Your task to perform on an android device: open app "Facebook Lite" (install if not already installed) and go to login screen Image 0: 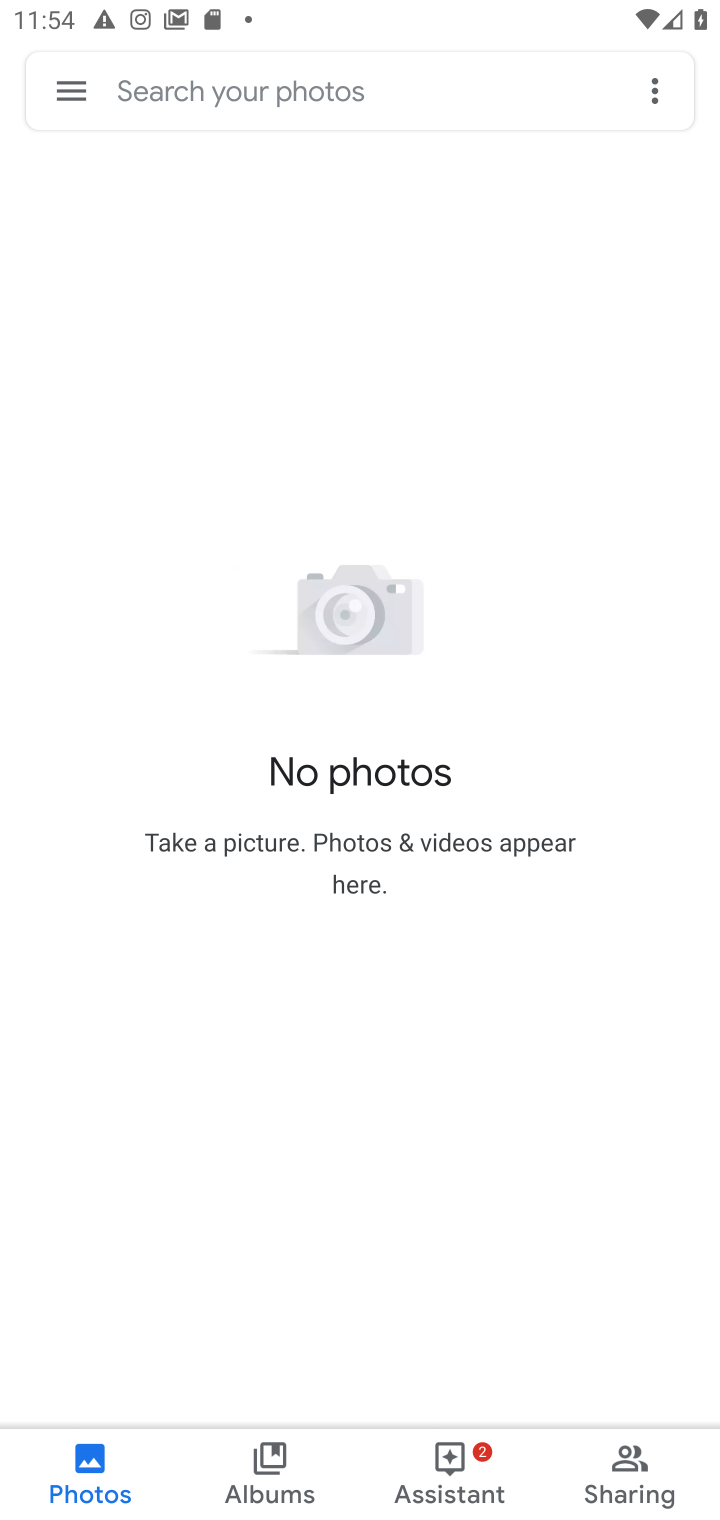
Step 0: press home button
Your task to perform on an android device: open app "Facebook Lite" (install if not already installed) and go to login screen Image 1: 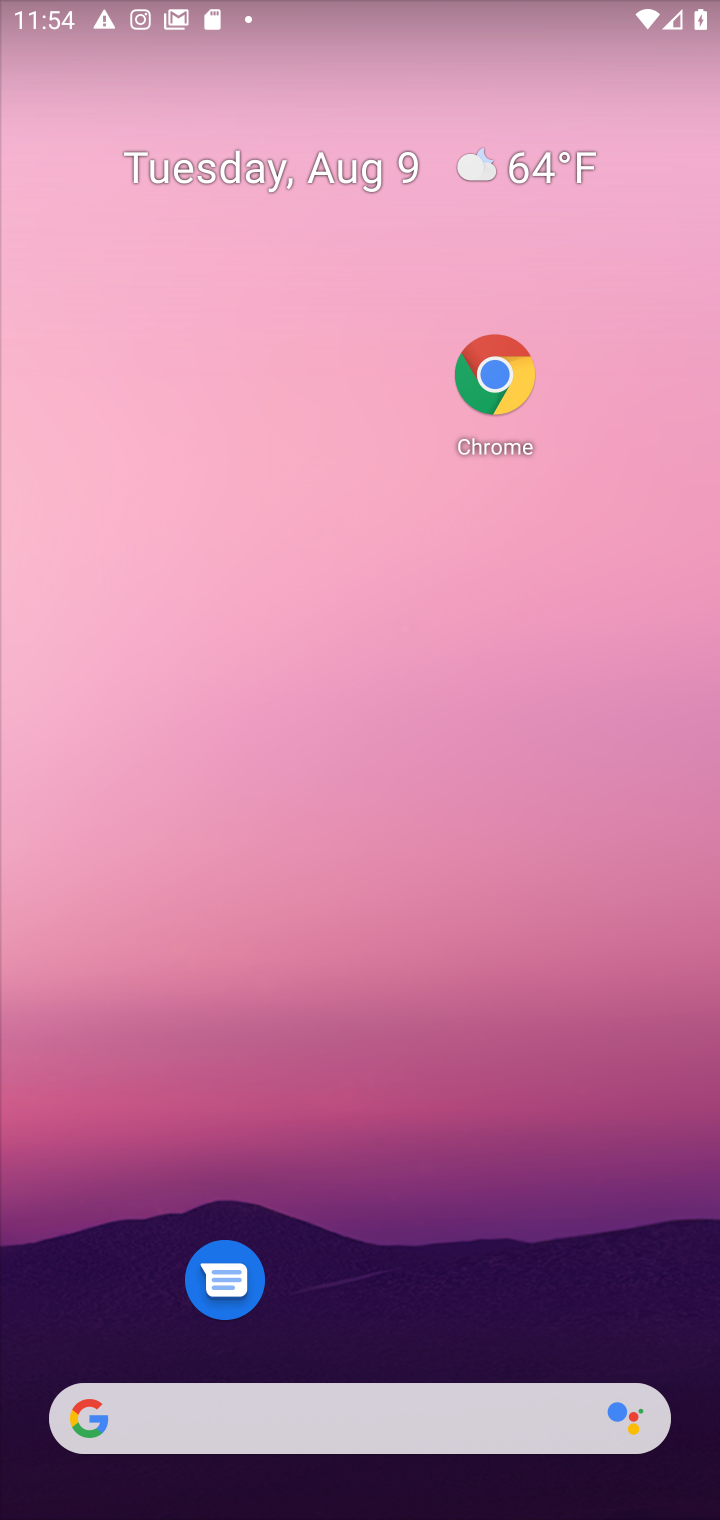
Step 1: drag from (405, 1383) to (712, 1273)
Your task to perform on an android device: open app "Facebook Lite" (install if not already installed) and go to login screen Image 2: 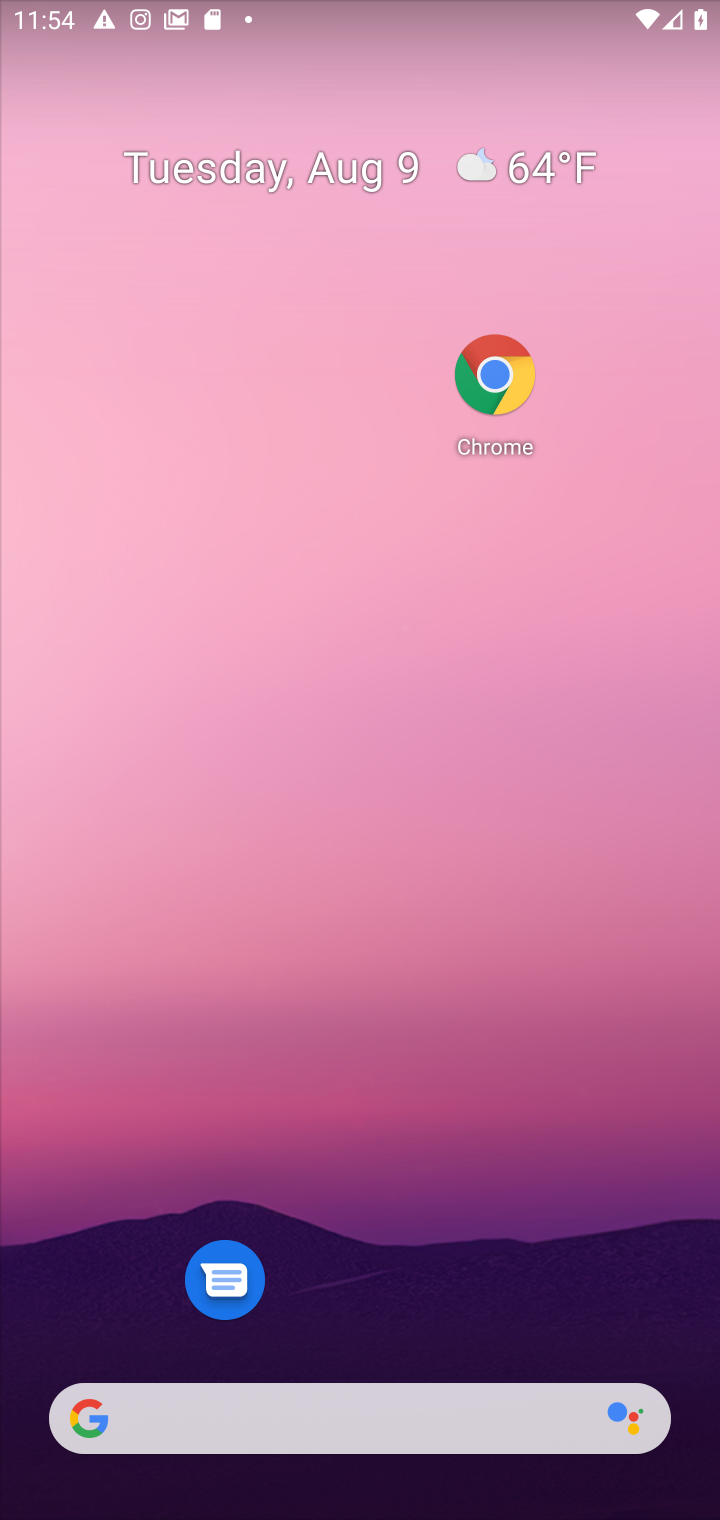
Step 2: drag from (358, 1326) to (432, 11)
Your task to perform on an android device: open app "Facebook Lite" (install if not already installed) and go to login screen Image 3: 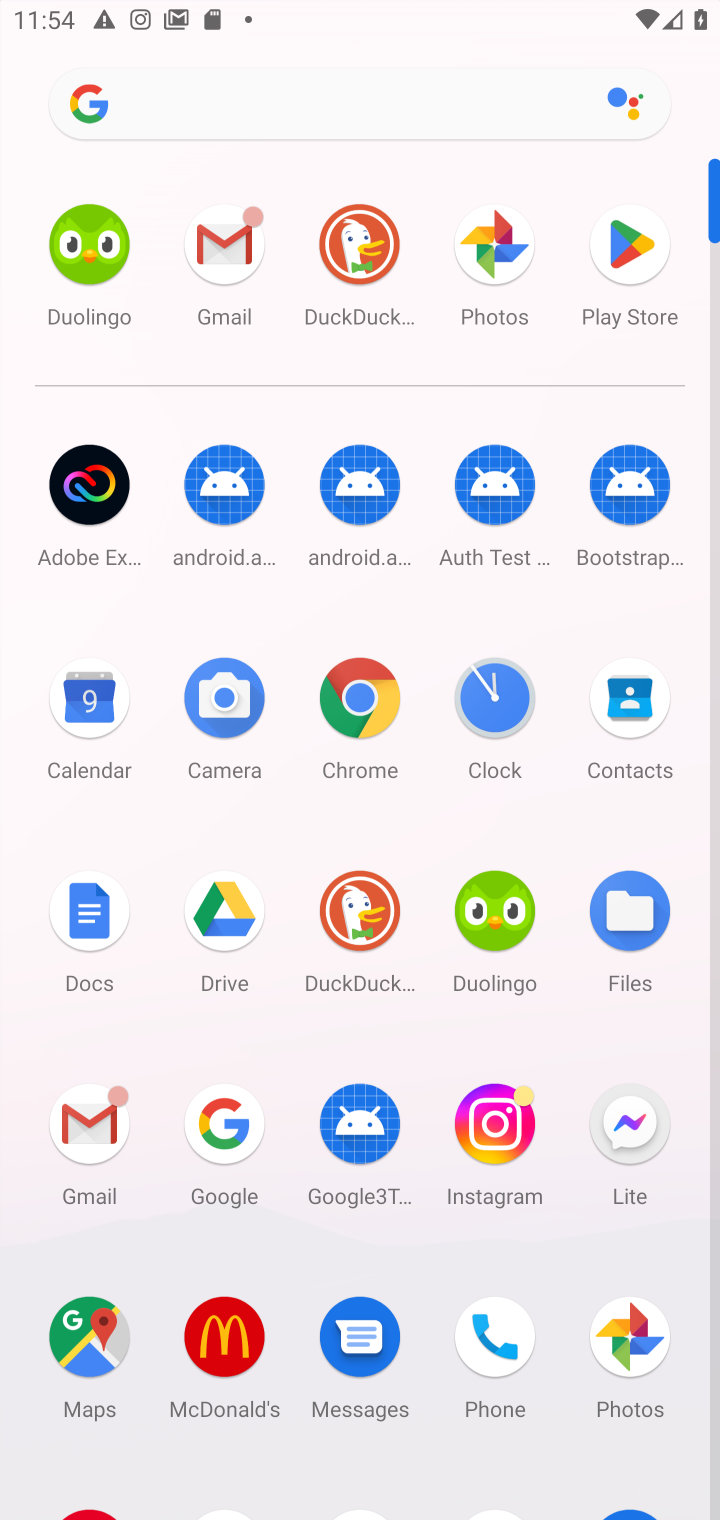
Step 3: click (642, 257)
Your task to perform on an android device: open app "Facebook Lite" (install if not already installed) and go to login screen Image 4: 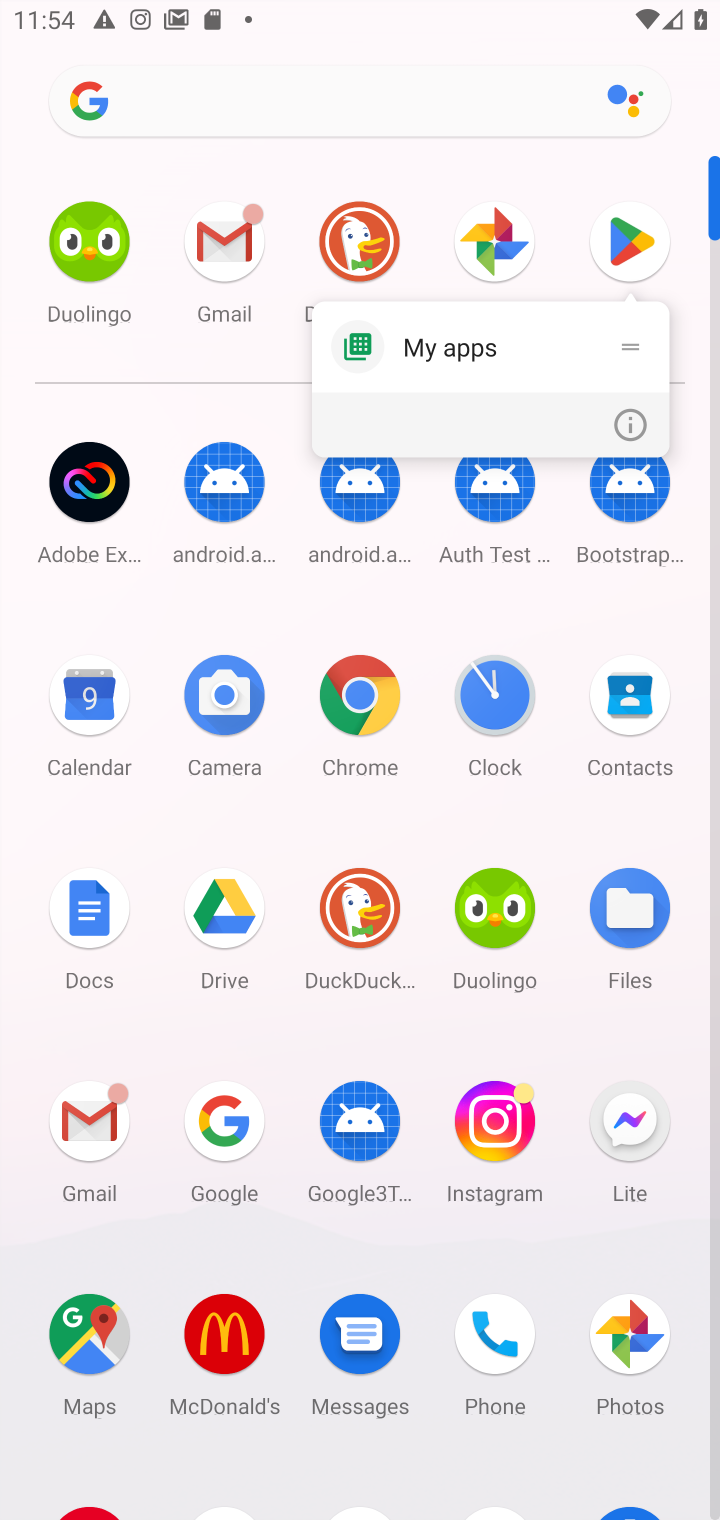
Step 4: click (646, 251)
Your task to perform on an android device: open app "Facebook Lite" (install if not already installed) and go to login screen Image 5: 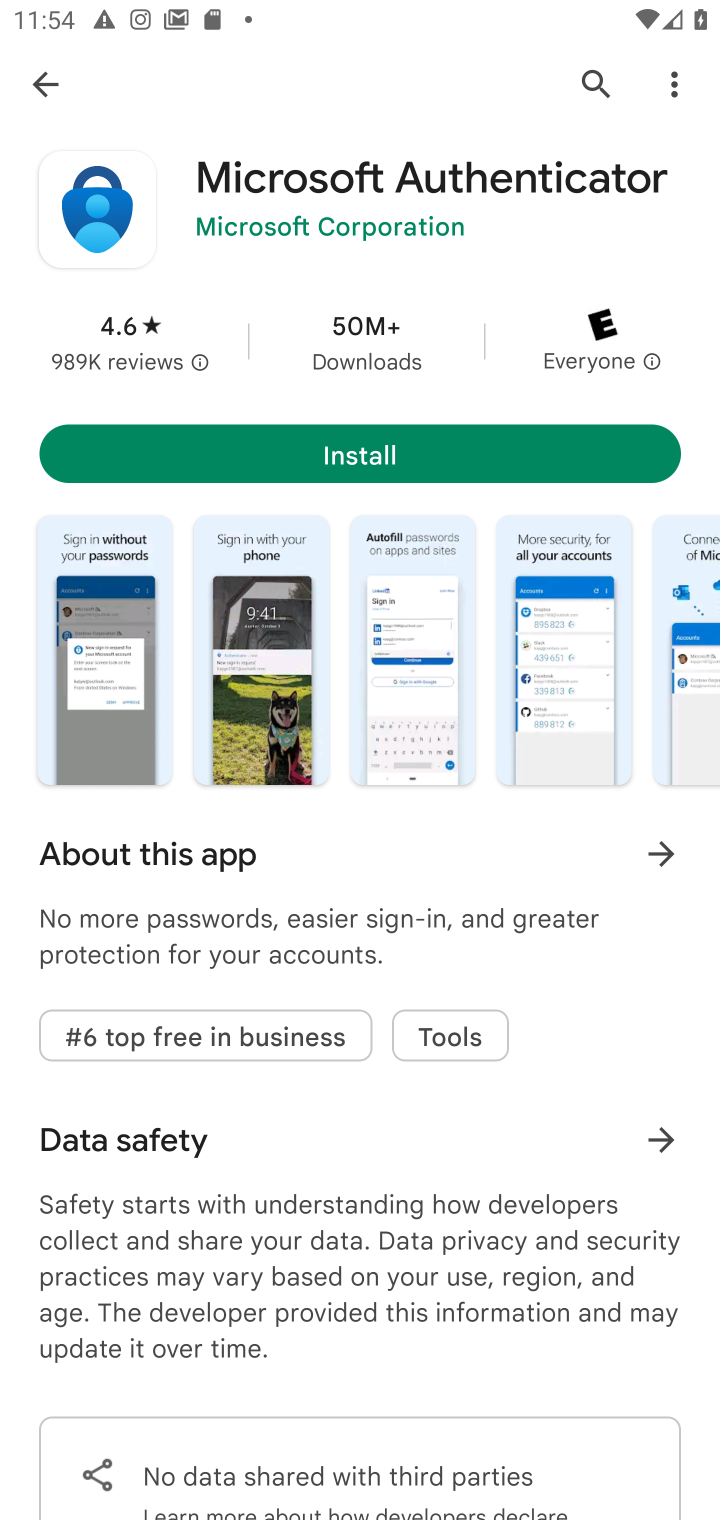
Step 5: click (31, 88)
Your task to perform on an android device: open app "Facebook Lite" (install if not already installed) and go to login screen Image 6: 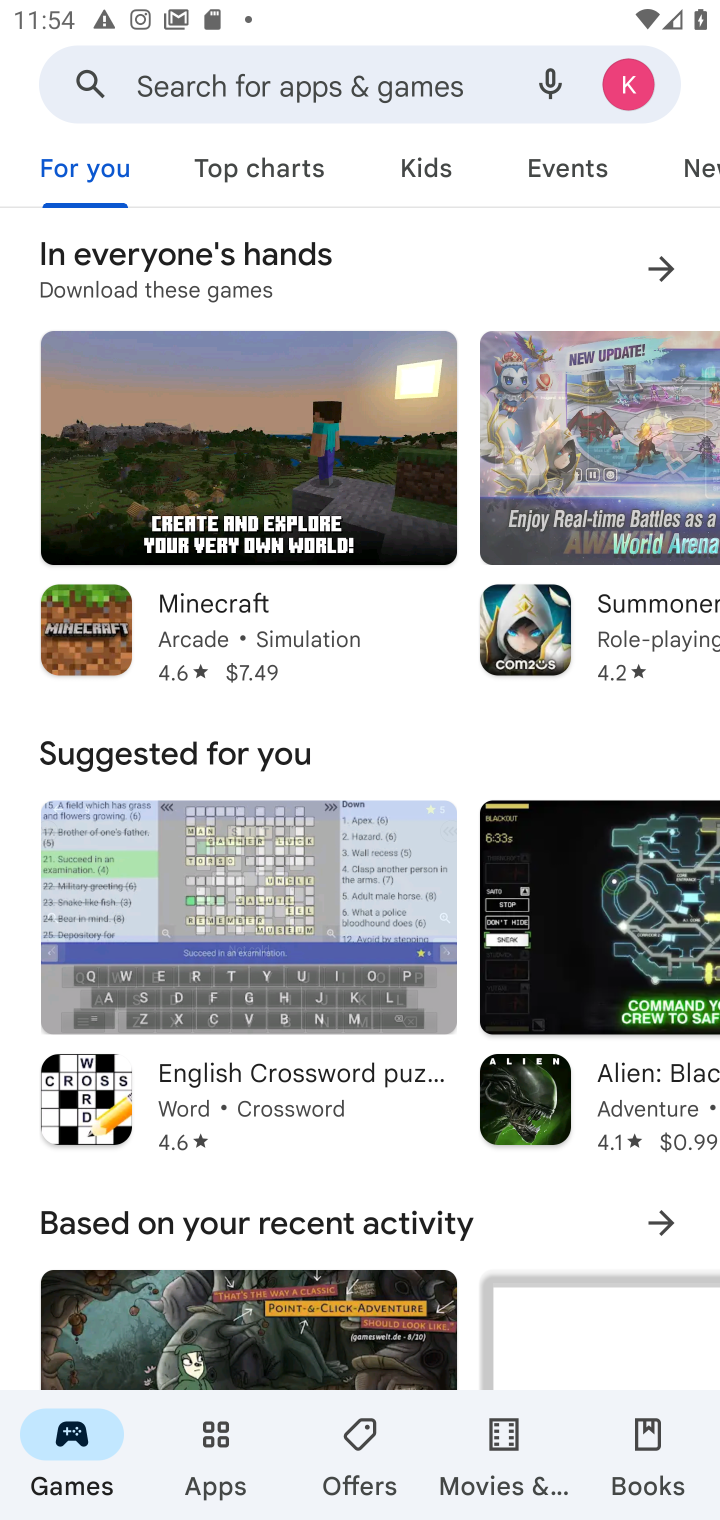
Step 6: click (286, 72)
Your task to perform on an android device: open app "Facebook Lite" (install if not already installed) and go to login screen Image 7: 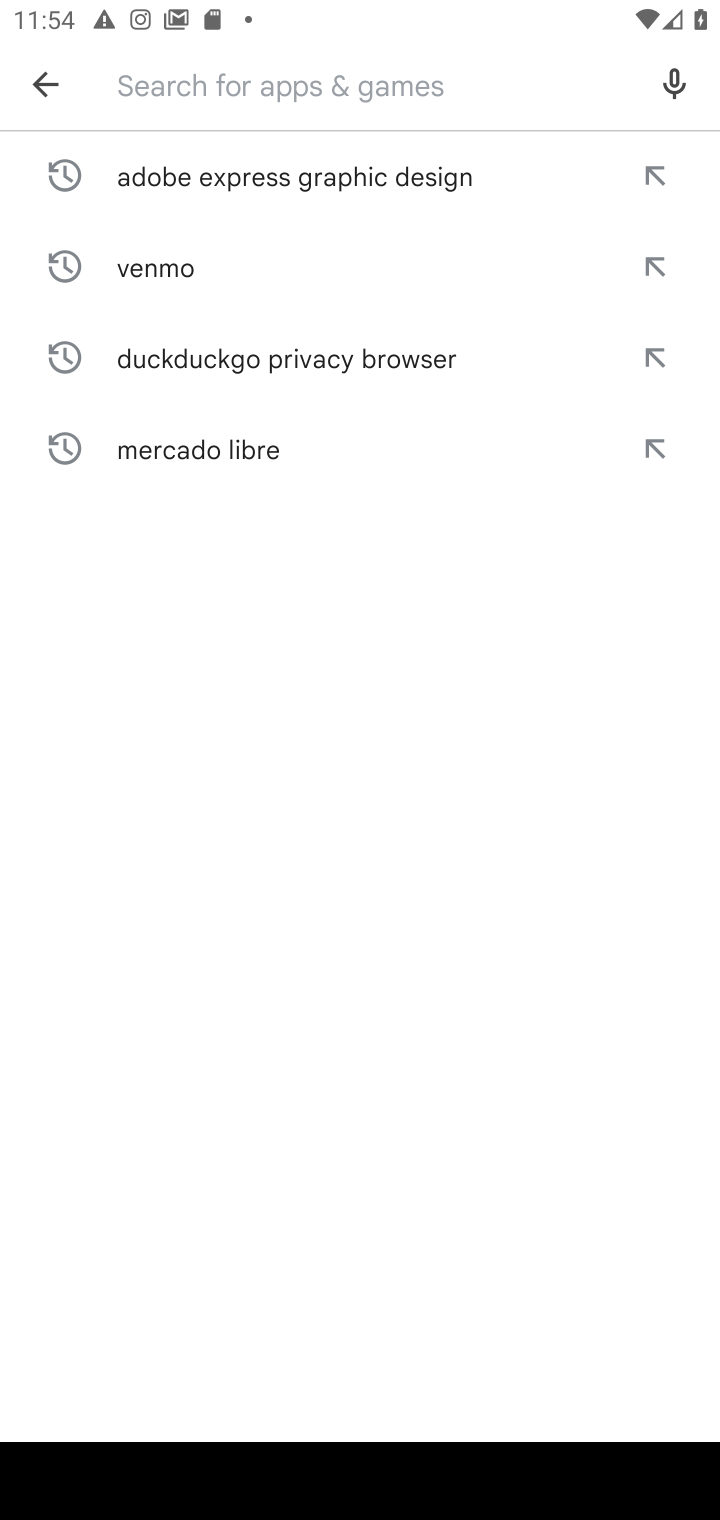
Step 7: type "Facebook Lite"
Your task to perform on an android device: open app "Facebook Lite" (install if not already installed) and go to login screen Image 8: 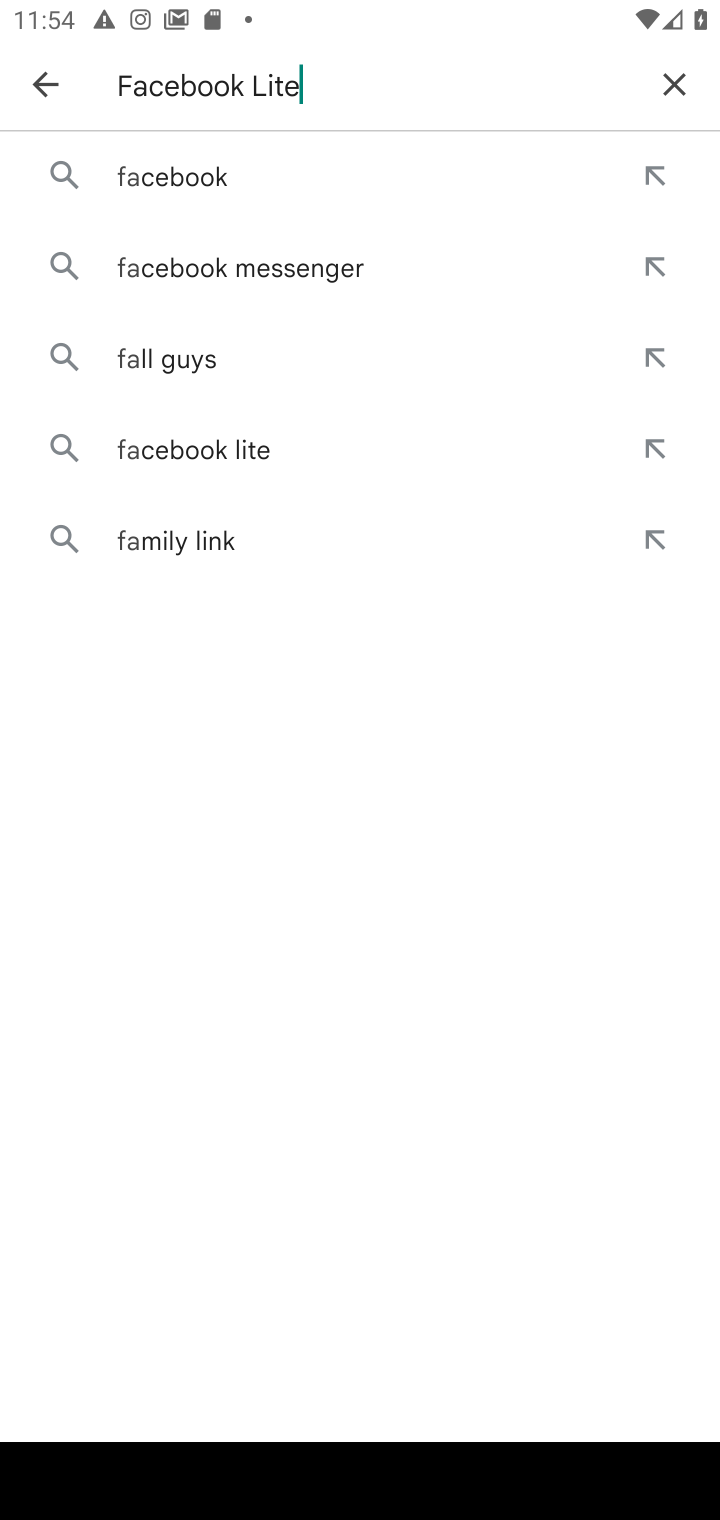
Step 8: type ""
Your task to perform on an android device: open app "Facebook Lite" (install if not already installed) and go to login screen Image 9: 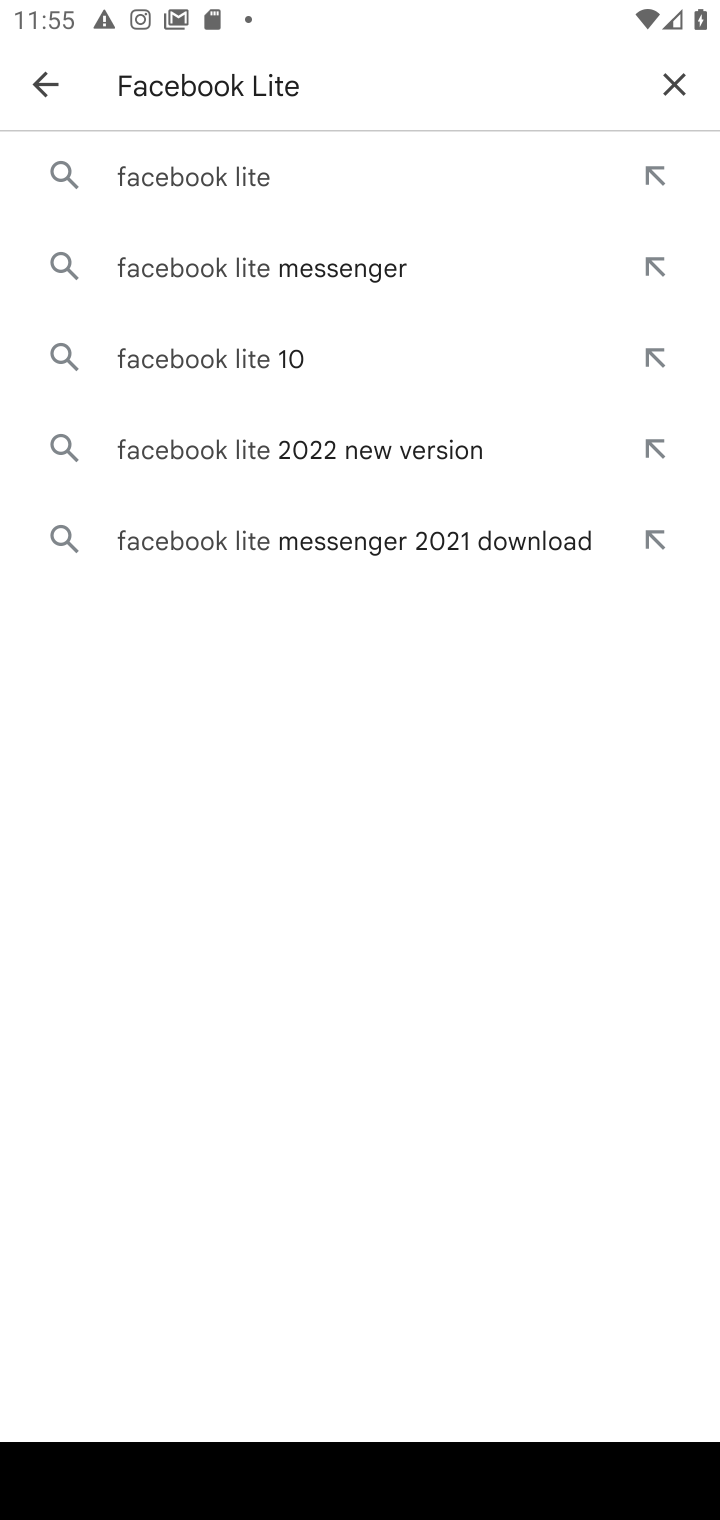
Step 9: click (140, 162)
Your task to perform on an android device: open app "Facebook Lite" (install if not already installed) and go to login screen Image 10: 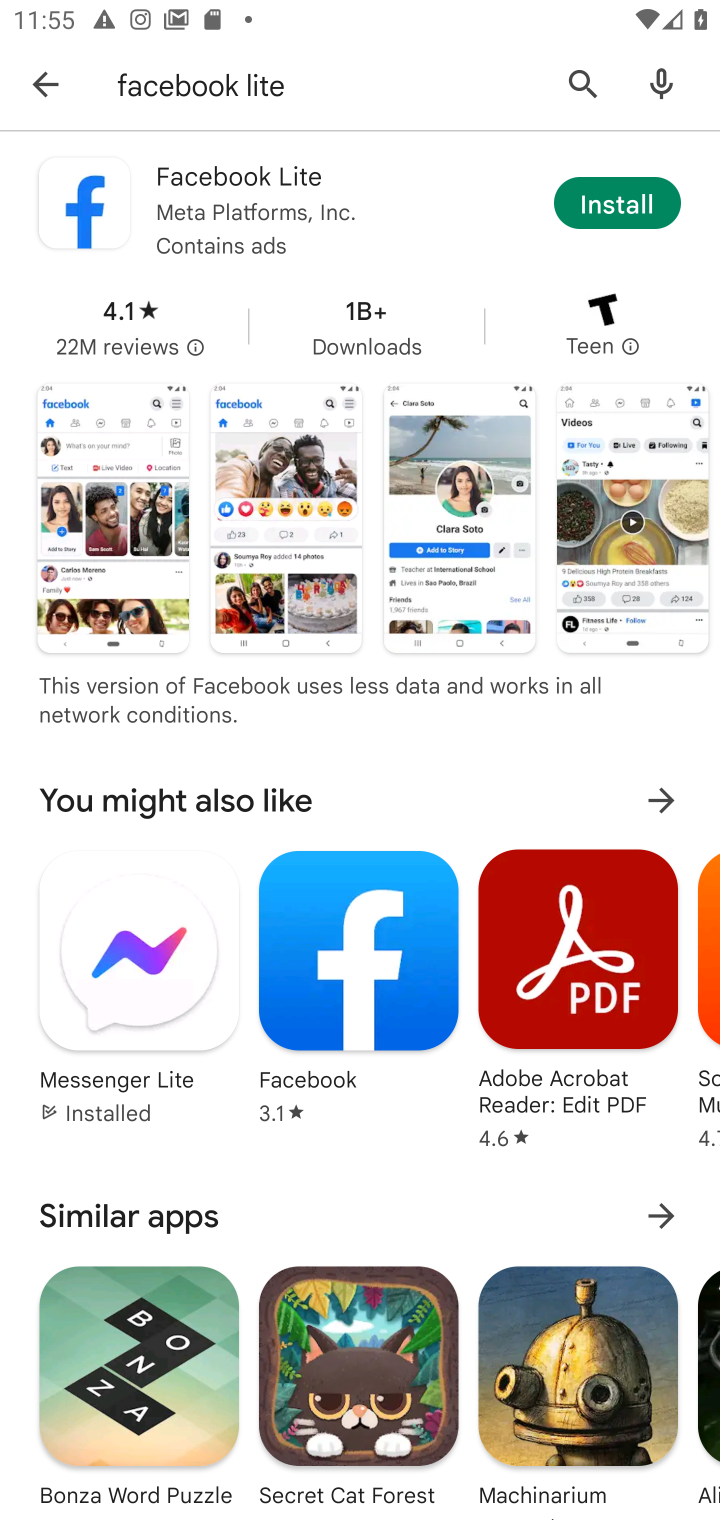
Step 10: click (630, 222)
Your task to perform on an android device: open app "Facebook Lite" (install if not already installed) and go to login screen Image 11: 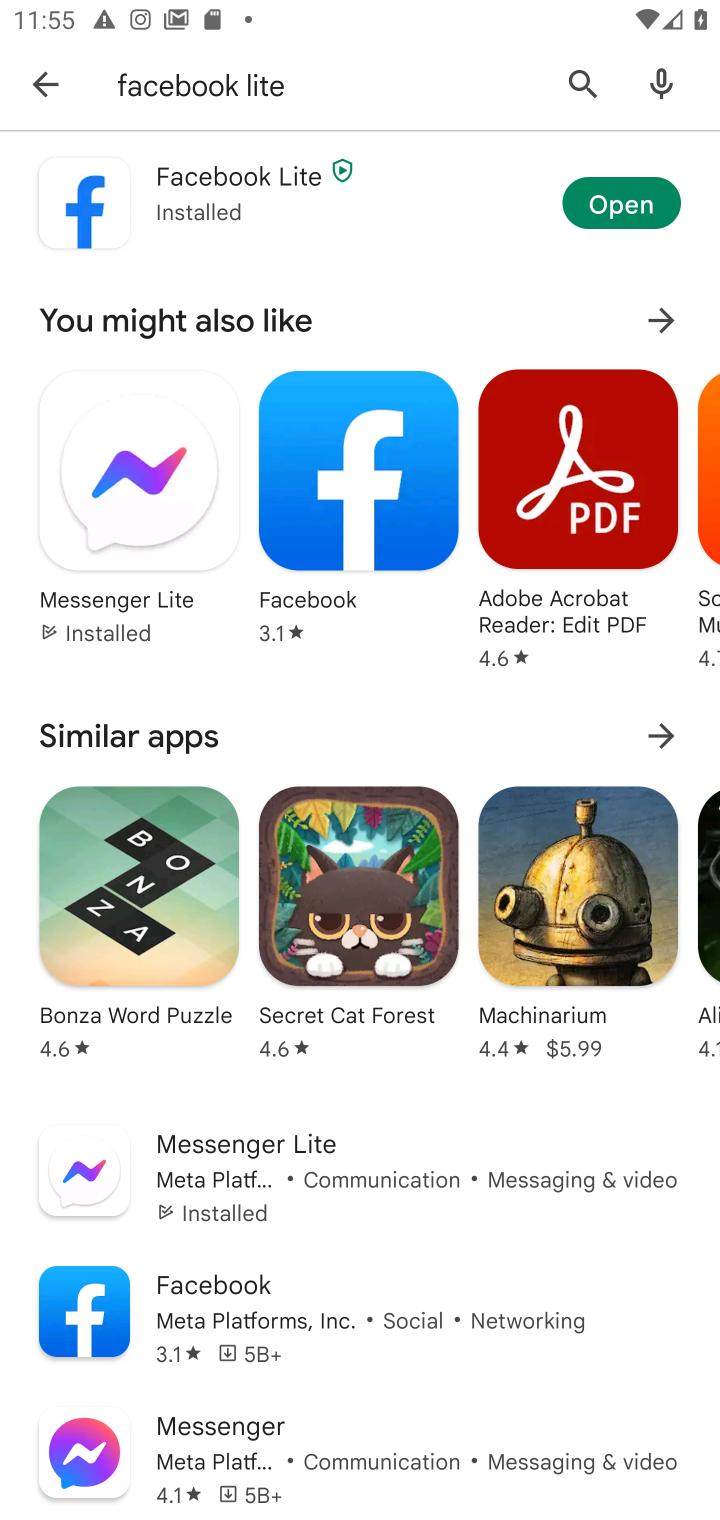
Step 11: click (648, 207)
Your task to perform on an android device: open app "Facebook Lite" (install if not already installed) and go to login screen Image 12: 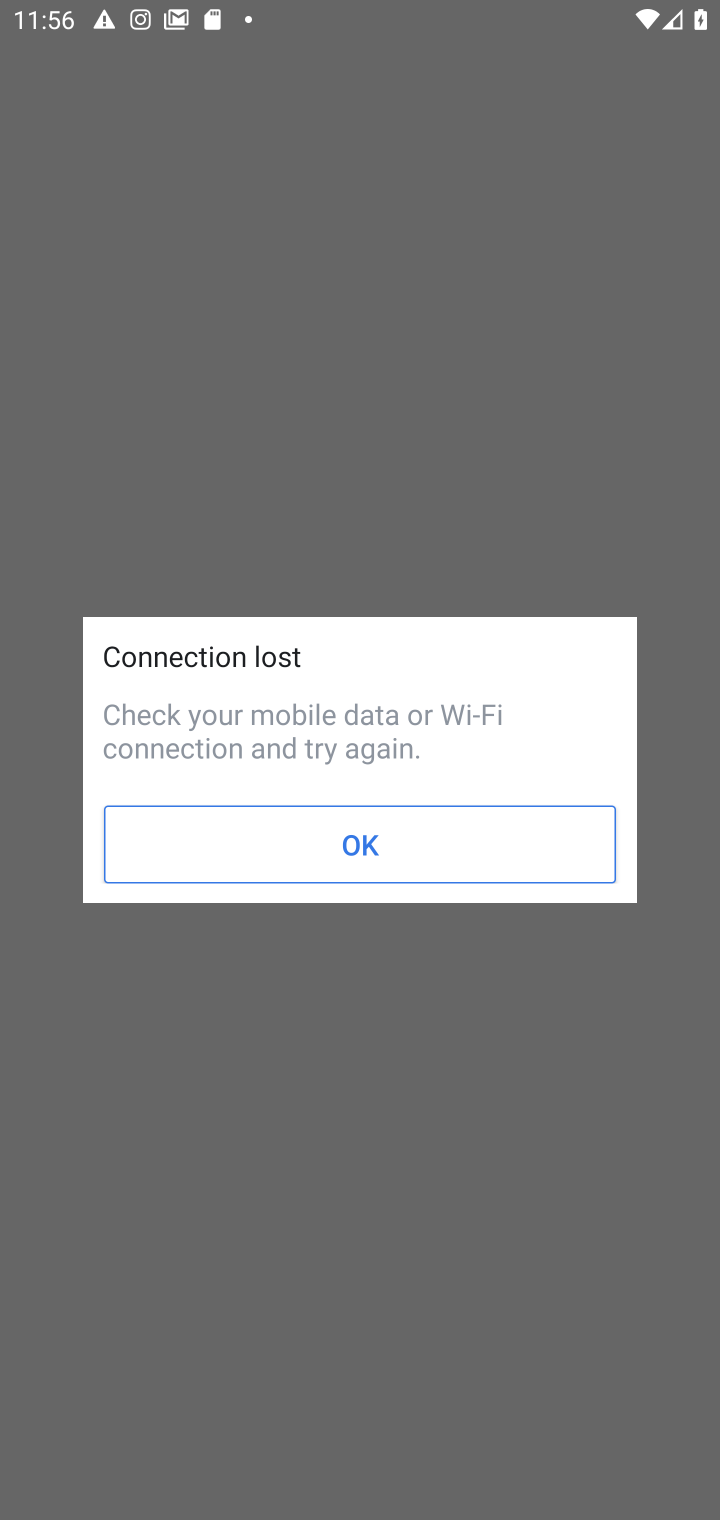
Step 12: task complete